Your task to perform on an android device: toggle priority inbox in the gmail app Image 0: 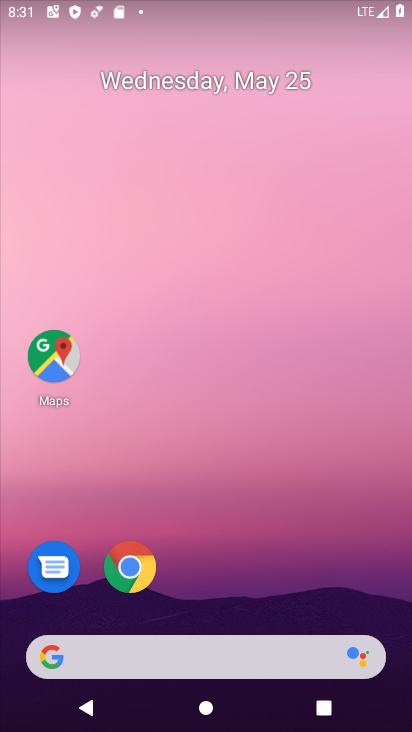
Step 0: drag from (231, 476) to (228, 14)
Your task to perform on an android device: toggle priority inbox in the gmail app Image 1: 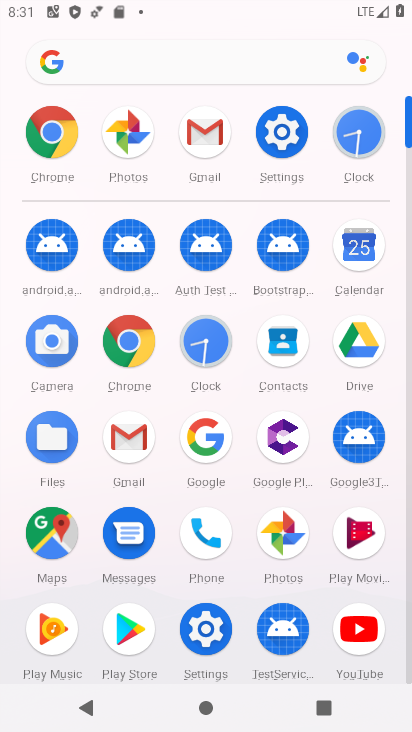
Step 1: click (213, 120)
Your task to perform on an android device: toggle priority inbox in the gmail app Image 2: 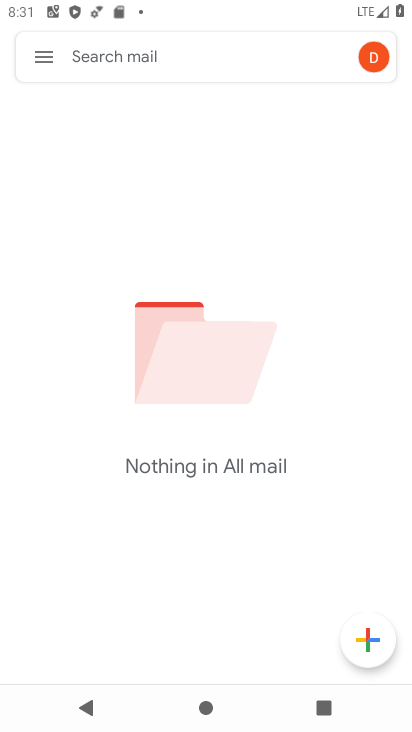
Step 2: click (43, 64)
Your task to perform on an android device: toggle priority inbox in the gmail app Image 3: 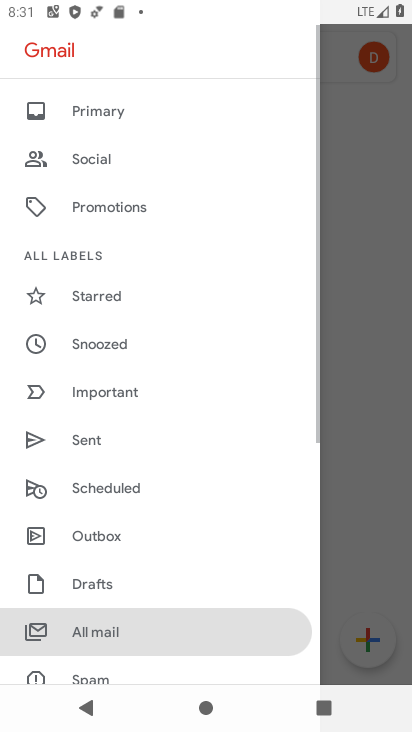
Step 3: drag from (163, 483) to (169, 138)
Your task to perform on an android device: toggle priority inbox in the gmail app Image 4: 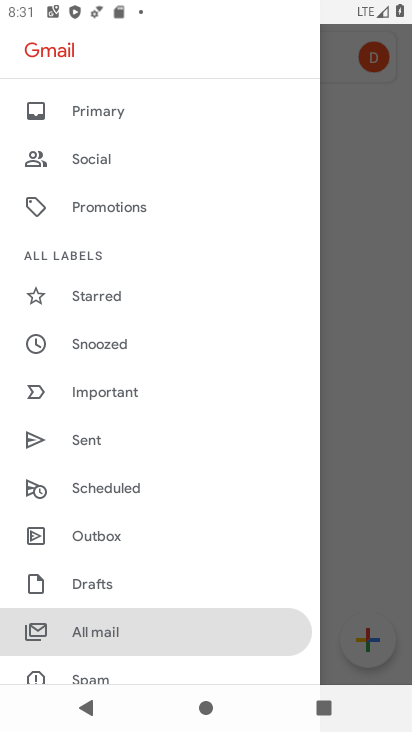
Step 4: drag from (143, 466) to (194, 136)
Your task to perform on an android device: toggle priority inbox in the gmail app Image 5: 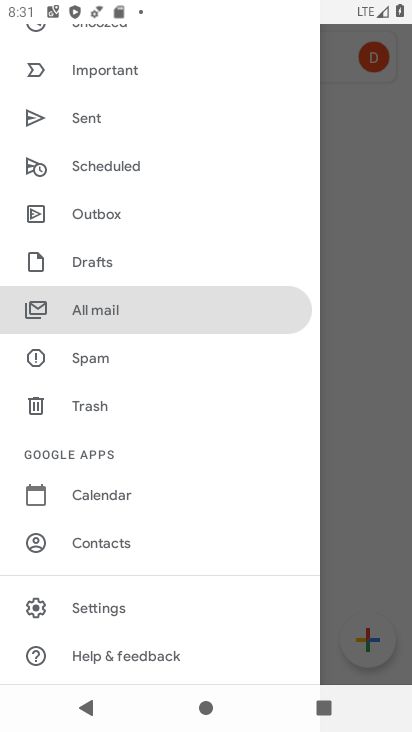
Step 5: click (115, 599)
Your task to perform on an android device: toggle priority inbox in the gmail app Image 6: 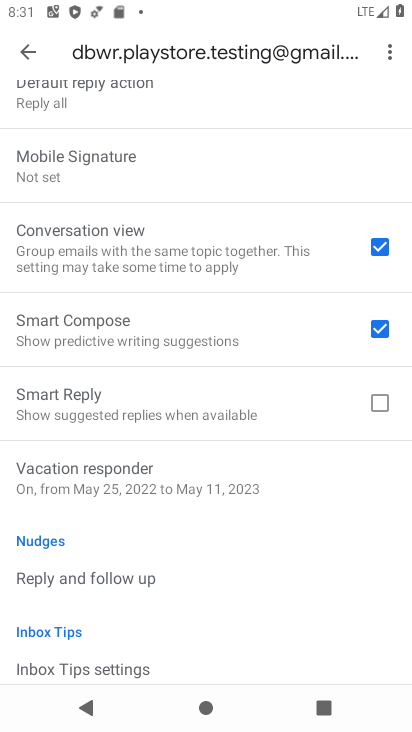
Step 6: drag from (189, 197) to (241, 684)
Your task to perform on an android device: toggle priority inbox in the gmail app Image 7: 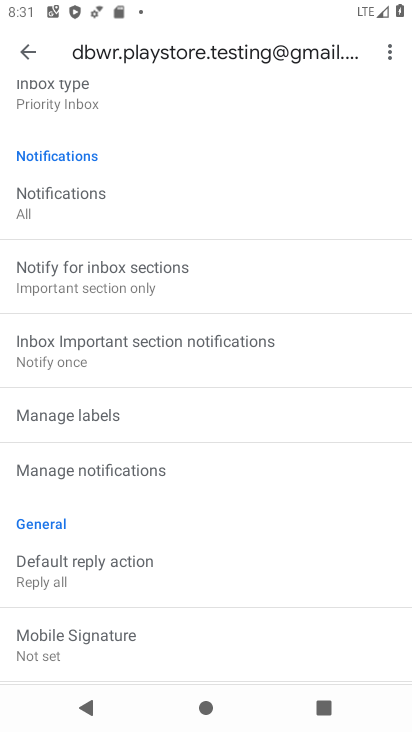
Step 7: click (80, 93)
Your task to perform on an android device: toggle priority inbox in the gmail app Image 8: 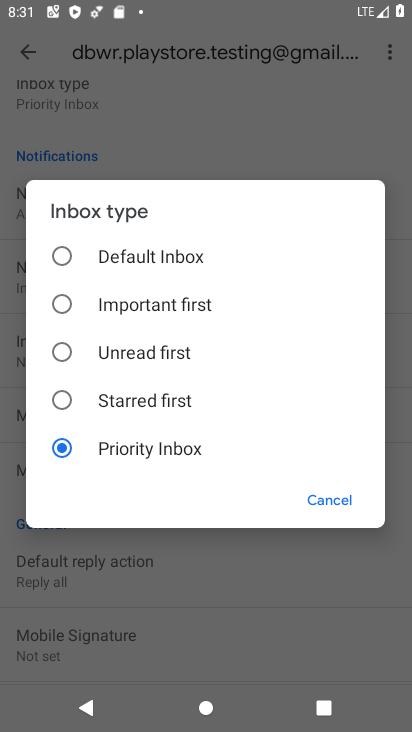
Step 8: click (58, 247)
Your task to perform on an android device: toggle priority inbox in the gmail app Image 9: 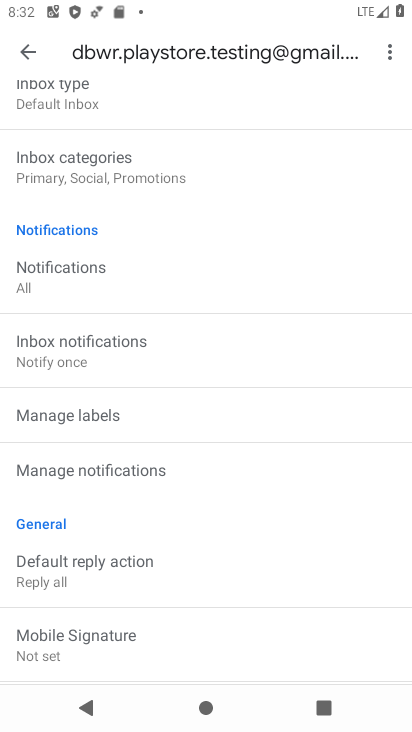
Step 9: task complete